Your task to perform on an android device: Open Maps and search for coffee Image 0: 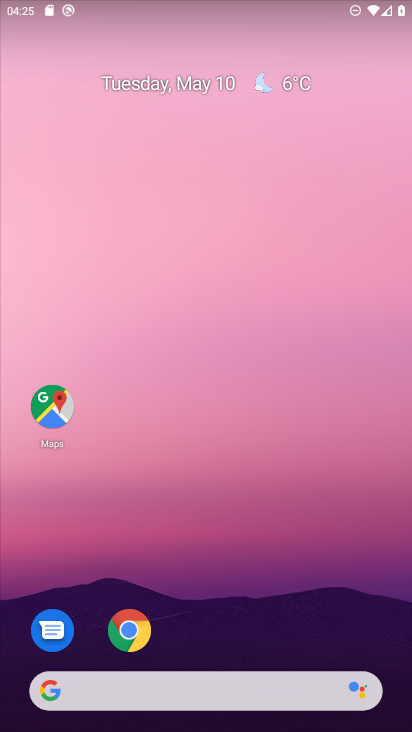
Step 0: click (45, 417)
Your task to perform on an android device: Open Maps and search for coffee Image 1: 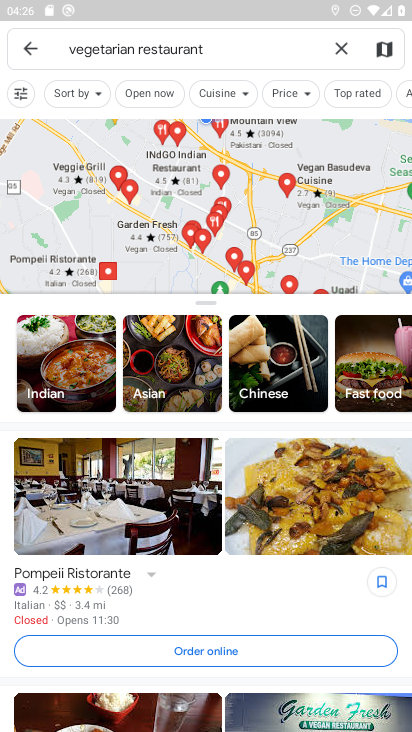
Step 1: click (343, 39)
Your task to perform on an android device: Open Maps and search for coffee Image 2: 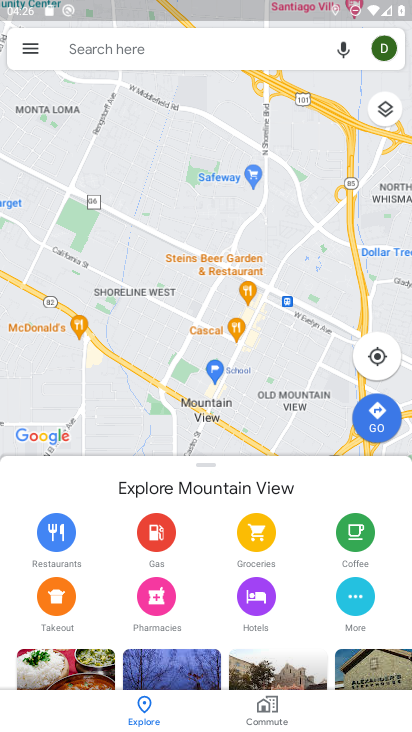
Step 2: click (220, 45)
Your task to perform on an android device: Open Maps and search for coffee Image 3: 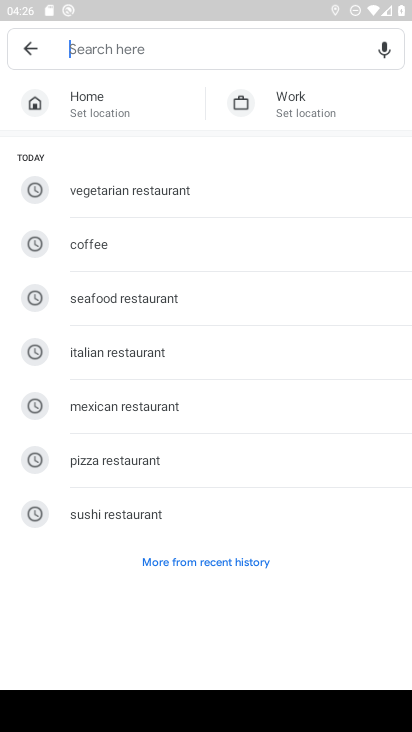
Step 3: click (154, 224)
Your task to perform on an android device: Open Maps and search for coffee Image 4: 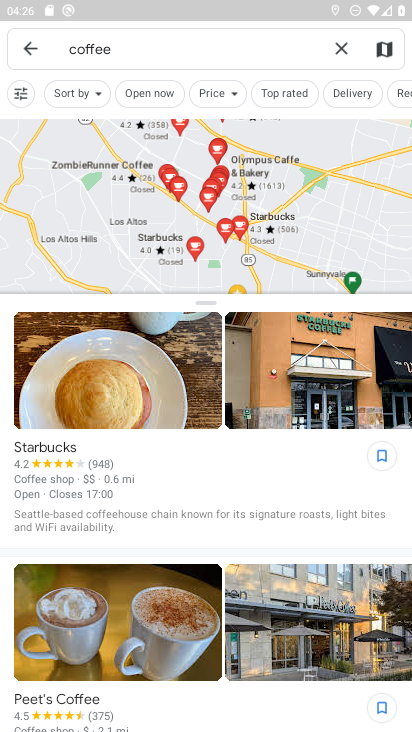
Step 4: task complete